Your task to perform on an android device: What's on my calendar tomorrow? Image 0: 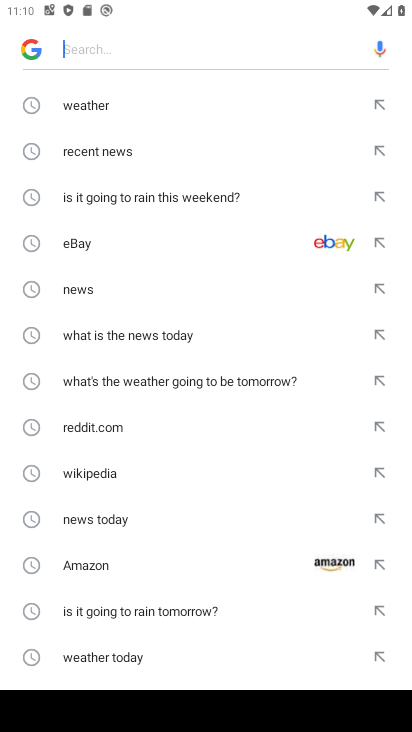
Step 0: press home button
Your task to perform on an android device: What's on my calendar tomorrow? Image 1: 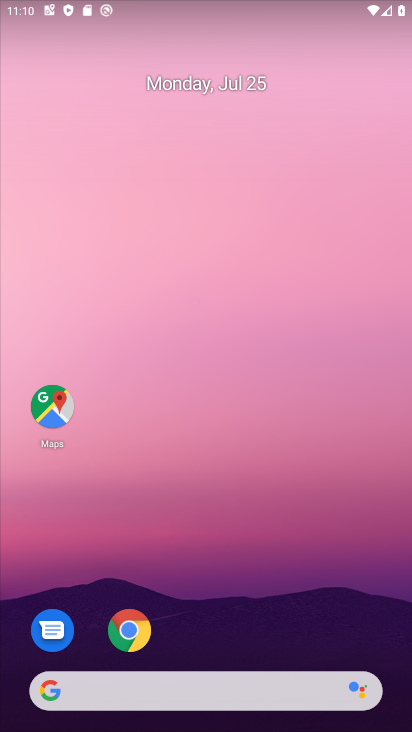
Step 1: drag from (345, 601) to (362, 106)
Your task to perform on an android device: What's on my calendar tomorrow? Image 2: 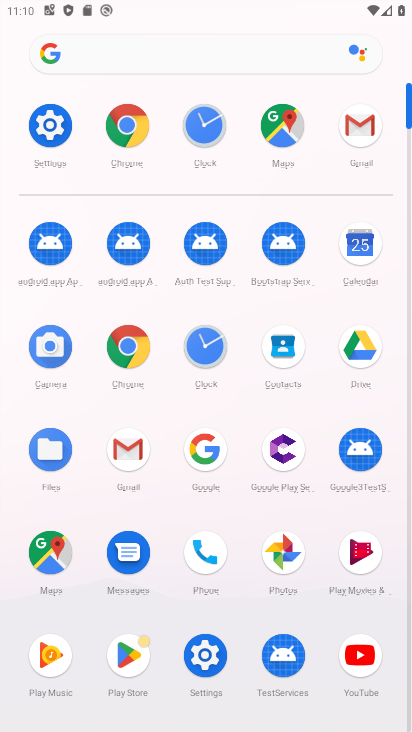
Step 2: click (360, 251)
Your task to perform on an android device: What's on my calendar tomorrow? Image 3: 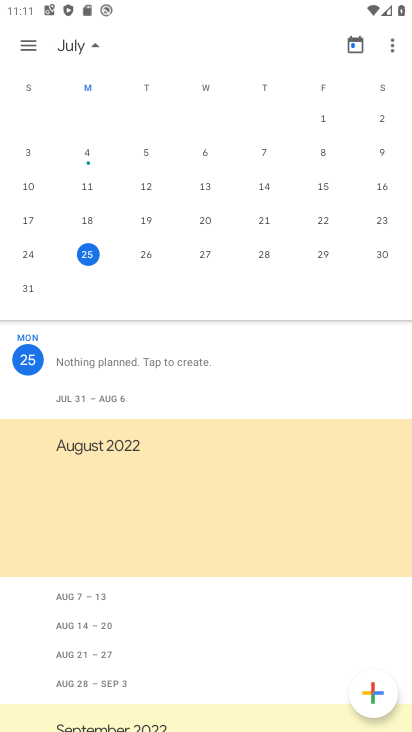
Step 3: click (203, 254)
Your task to perform on an android device: What's on my calendar tomorrow? Image 4: 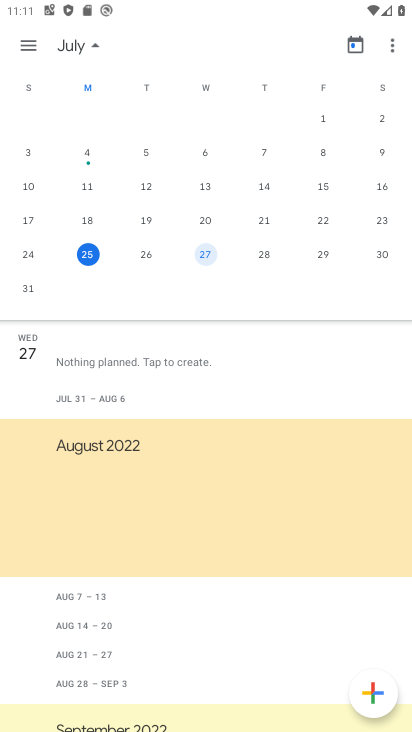
Step 4: task complete